Your task to perform on an android device: Open wifi settings Image 0: 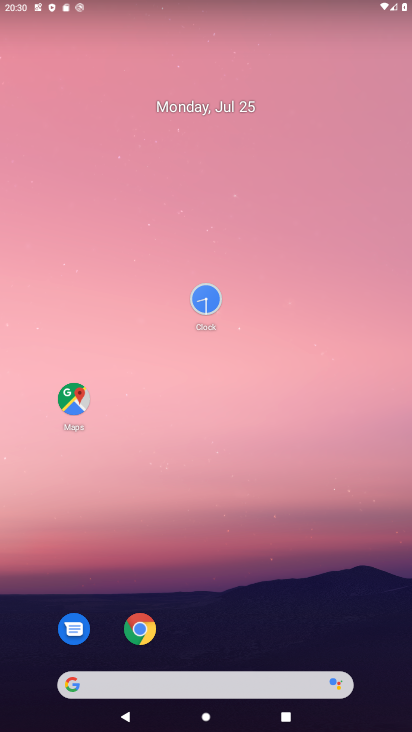
Step 0: drag from (209, 644) to (240, 0)
Your task to perform on an android device: Open wifi settings Image 1: 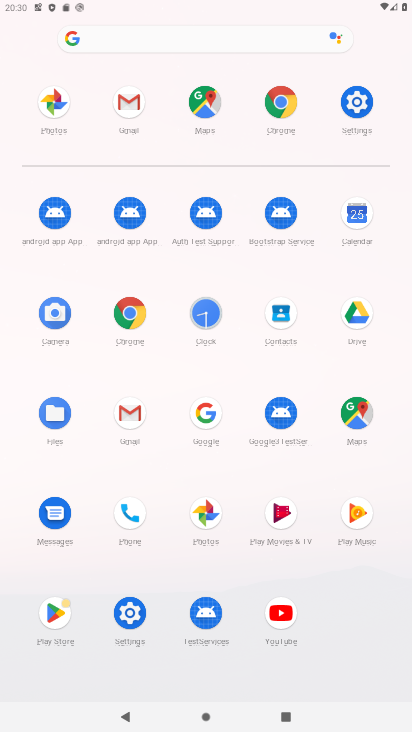
Step 1: click (127, 613)
Your task to perform on an android device: Open wifi settings Image 2: 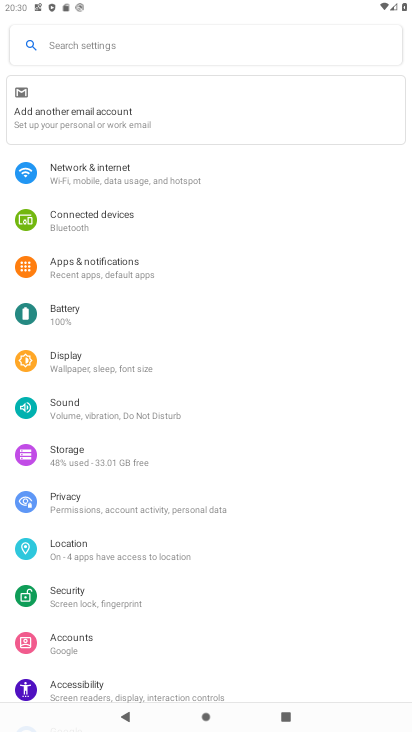
Step 2: click (127, 174)
Your task to perform on an android device: Open wifi settings Image 3: 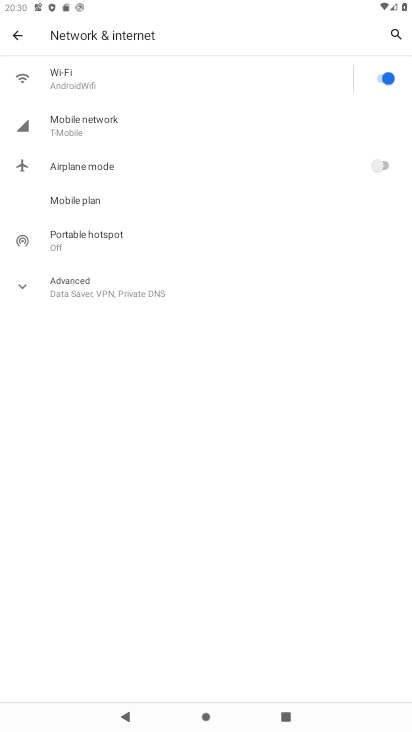
Step 3: click (67, 73)
Your task to perform on an android device: Open wifi settings Image 4: 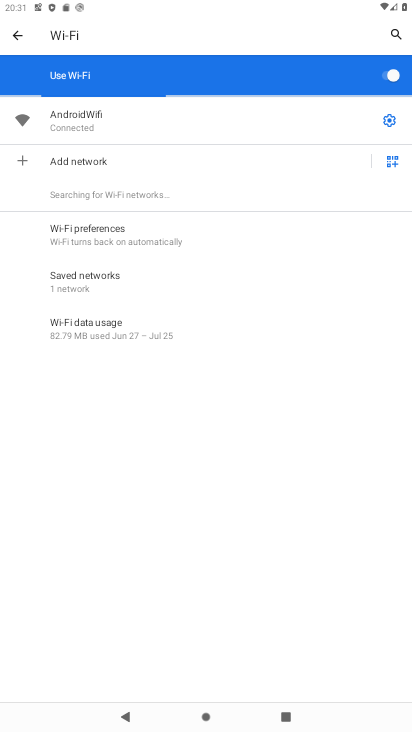
Step 4: task complete